Your task to perform on an android device: Go to Reddit.com Image 0: 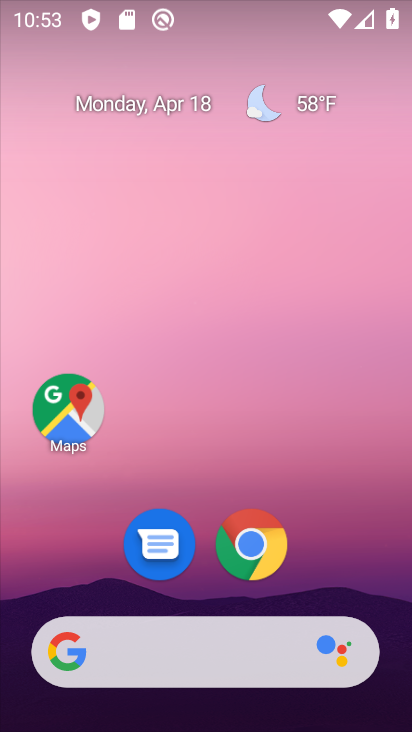
Step 0: click (254, 541)
Your task to perform on an android device: Go to Reddit.com Image 1: 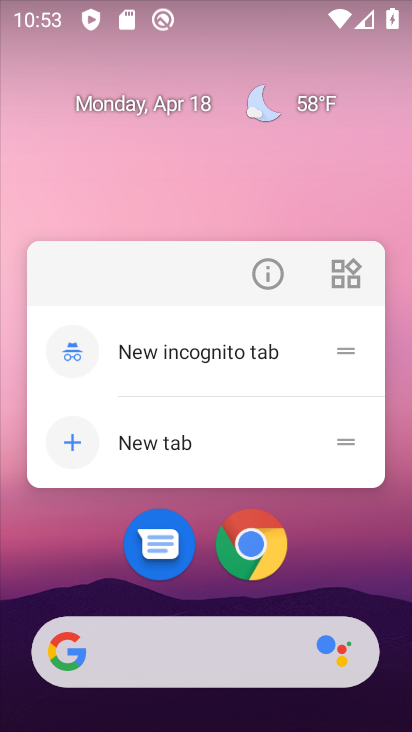
Step 1: click (254, 541)
Your task to perform on an android device: Go to Reddit.com Image 2: 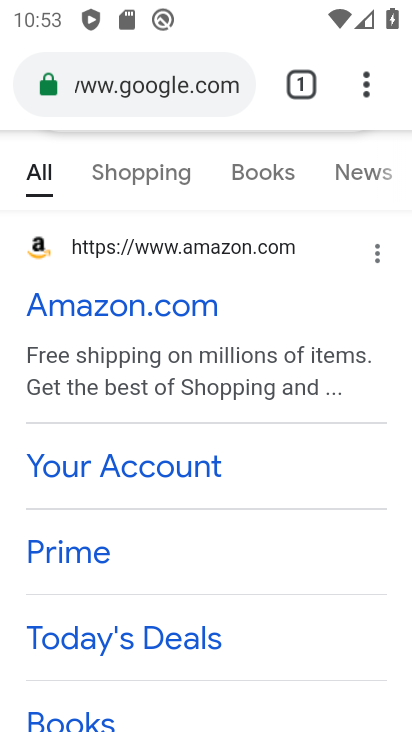
Step 2: click (210, 79)
Your task to perform on an android device: Go to Reddit.com Image 3: 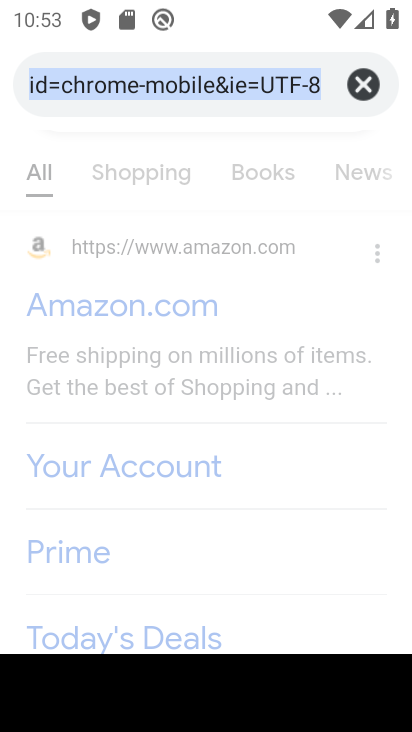
Step 3: click (364, 87)
Your task to perform on an android device: Go to Reddit.com Image 4: 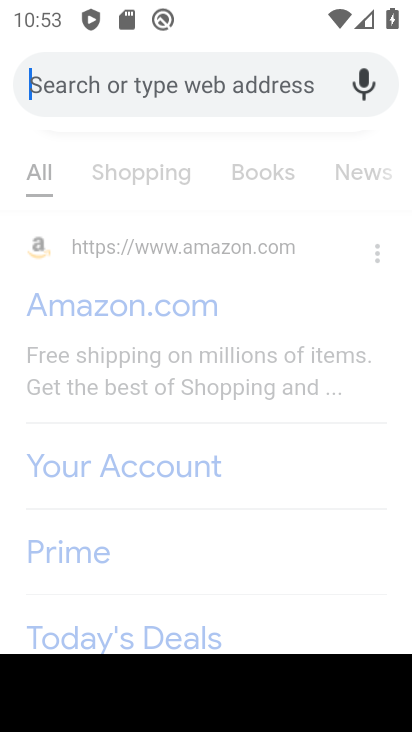
Step 4: click (215, 82)
Your task to perform on an android device: Go to Reddit.com Image 5: 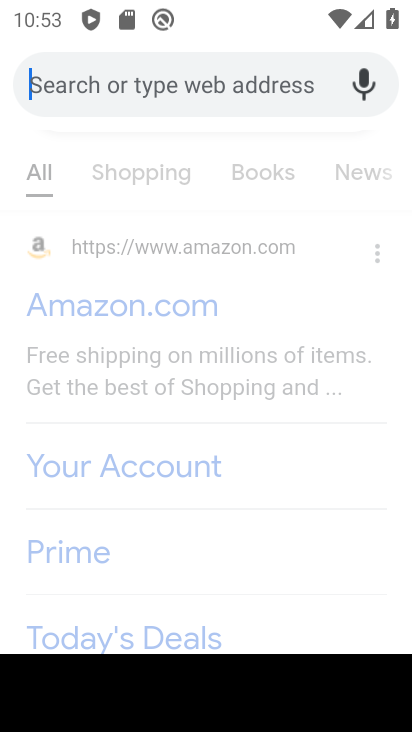
Step 5: type "Reddit.com"
Your task to perform on an android device: Go to Reddit.com Image 6: 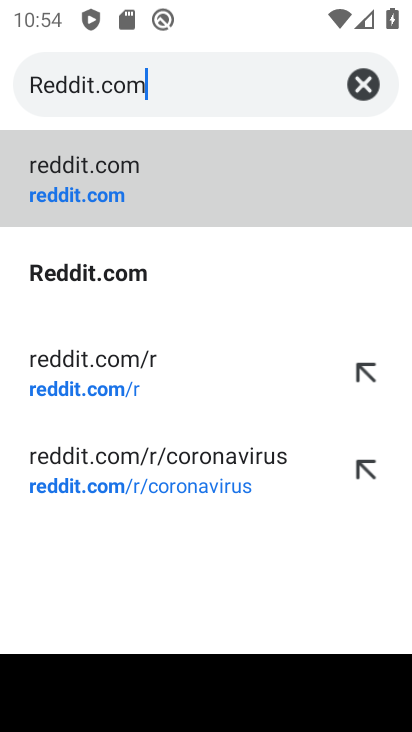
Step 6: click (83, 268)
Your task to perform on an android device: Go to Reddit.com Image 7: 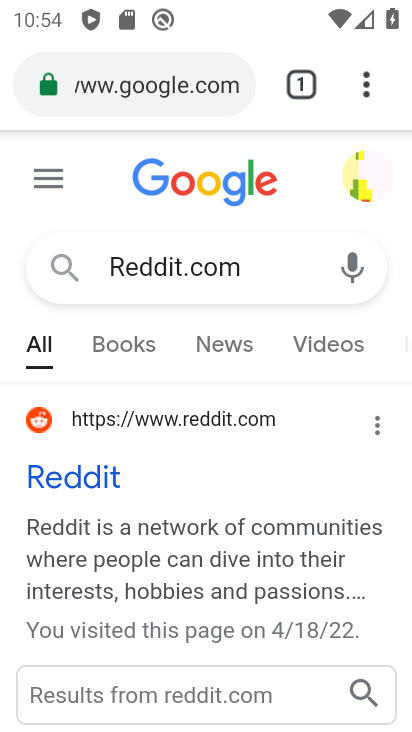
Step 7: task complete